Your task to perform on an android device: Go to eBay Image 0: 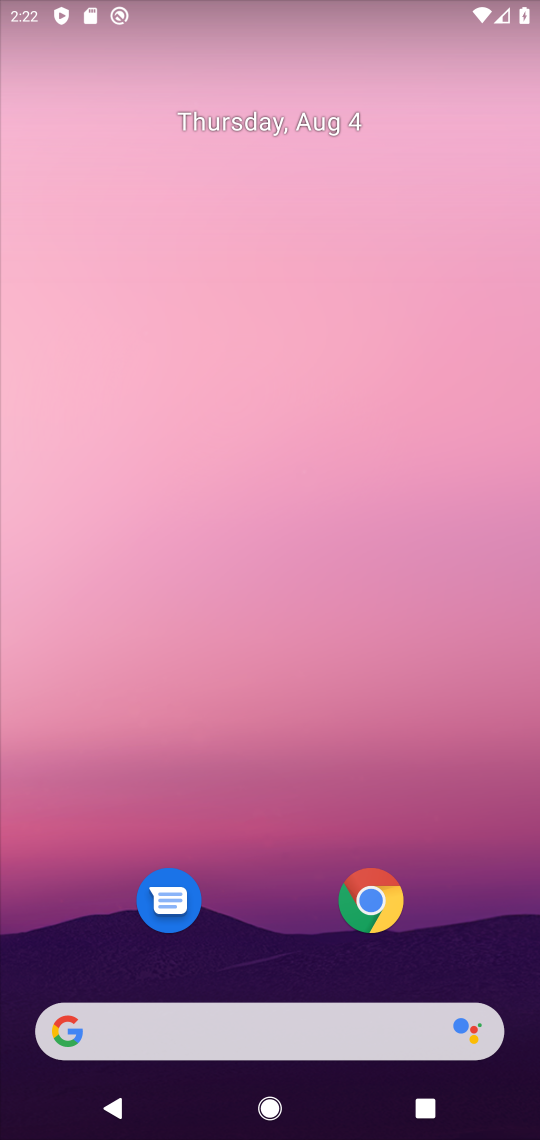
Step 0: click (395, 918)
Your task to perform on an android device: Go to eBay Image 1: 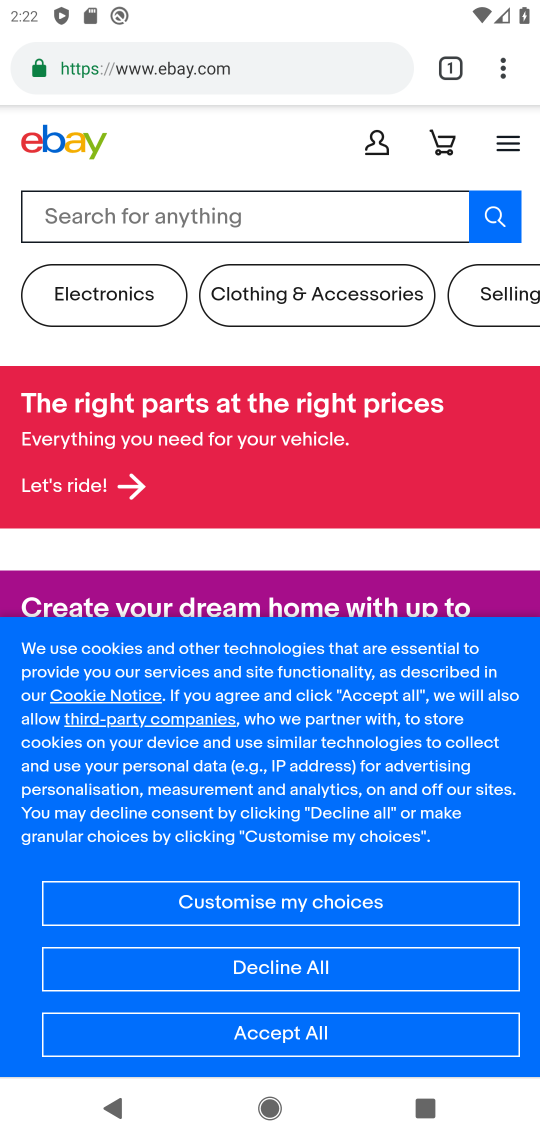
Step 1: task complete